Your task to perform on an android device: What's on my calendar tomorrow? Image 0: 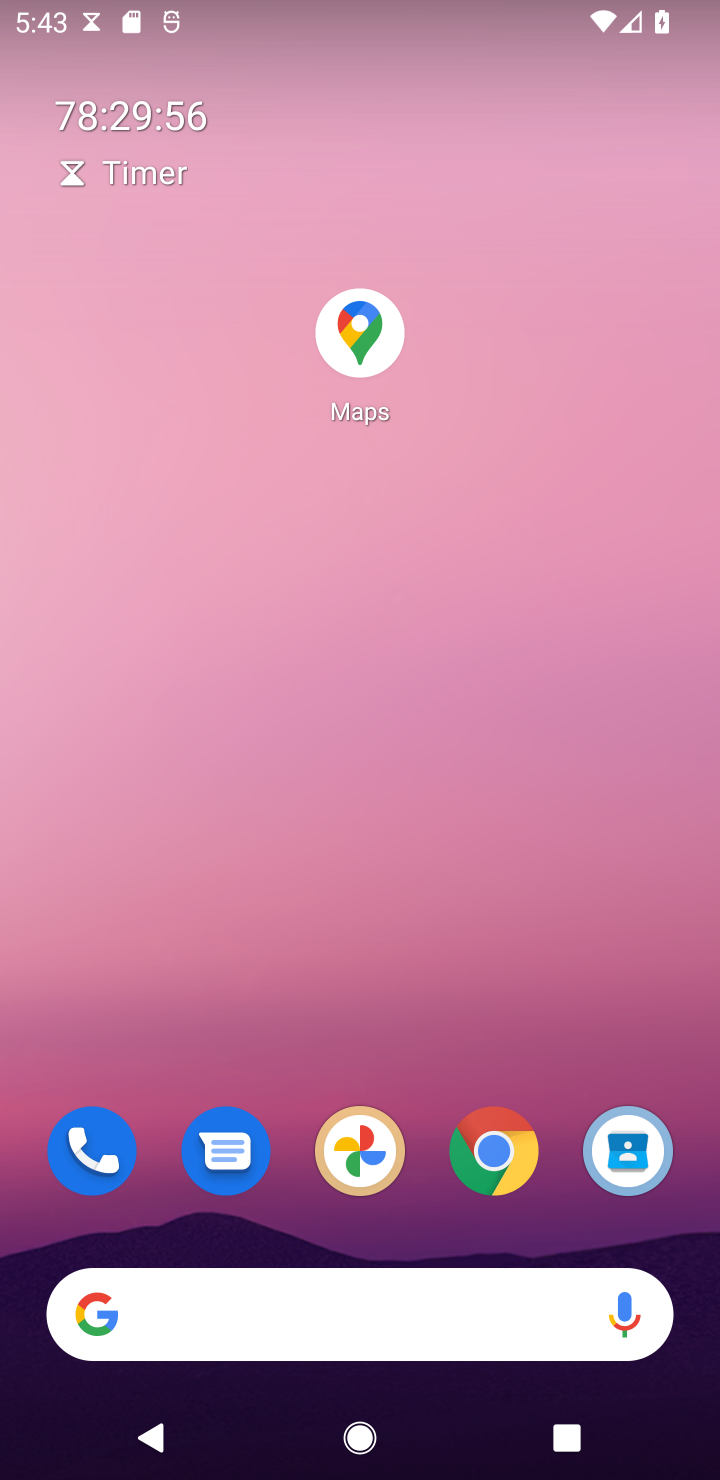
Step 0: press home button
Your task to perform on an android device: What's on my calendar tomorrow? Image 1: 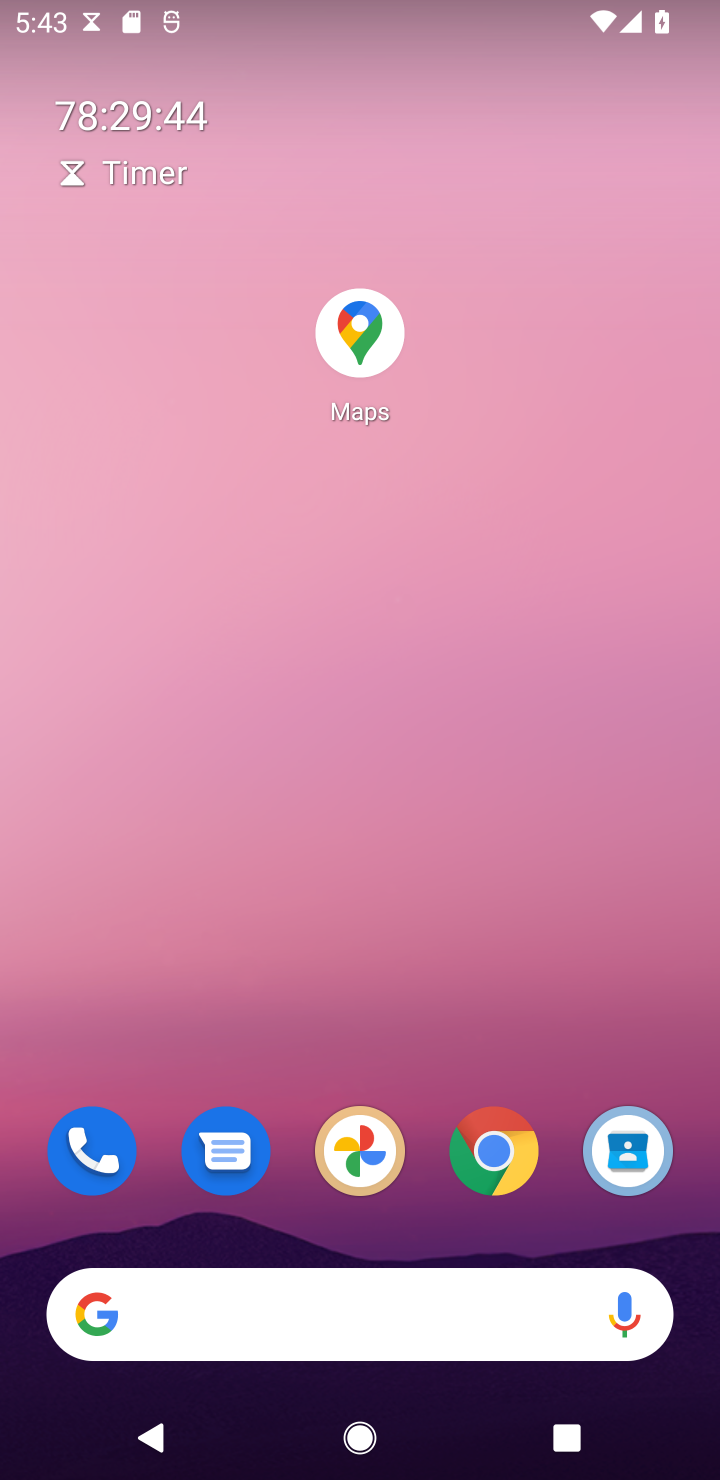
Step 1: drag from (322, 1069) to (348, 312)
Your task to perform on an android device: What's on my calendar tomorrow? Image 2: 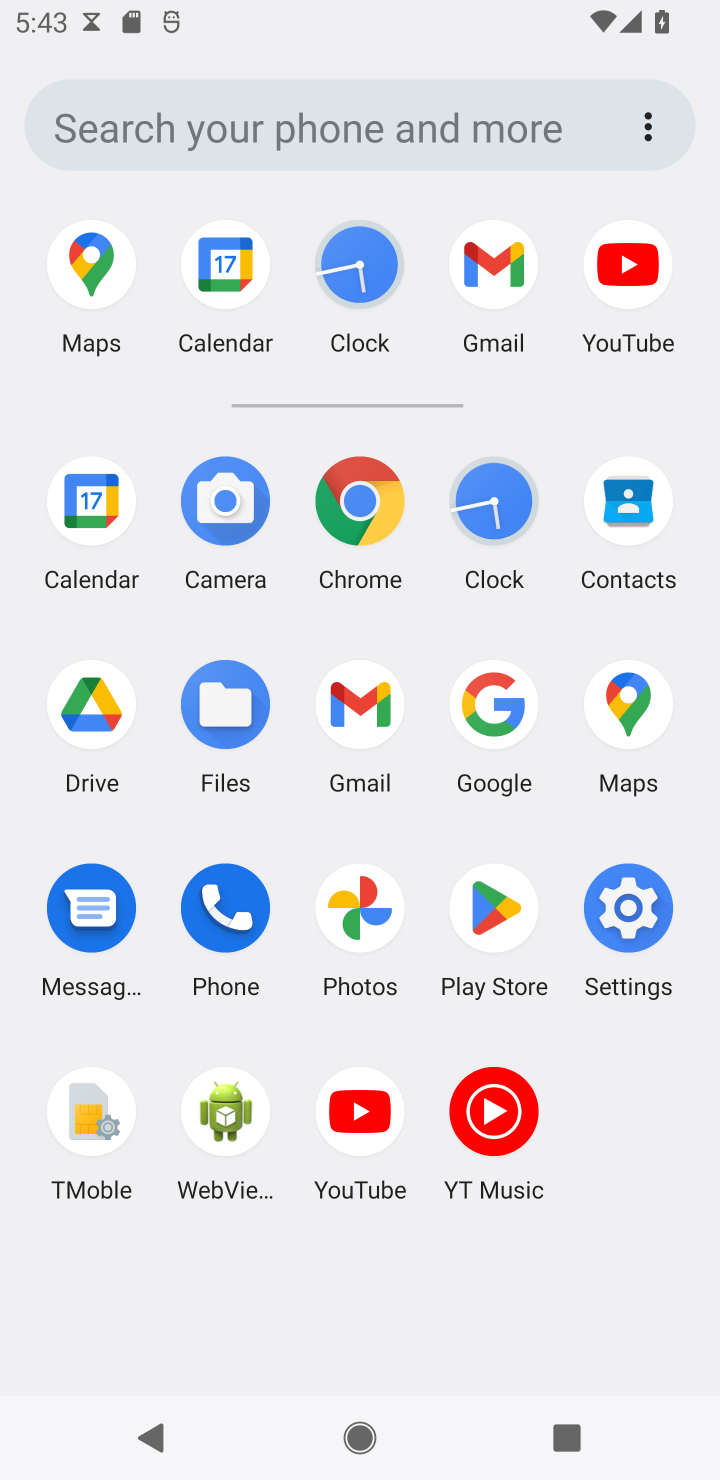
Step 2: click (81, 480)
Your task to perform on an android device: What's on my calendar tomorrow? Image 3: 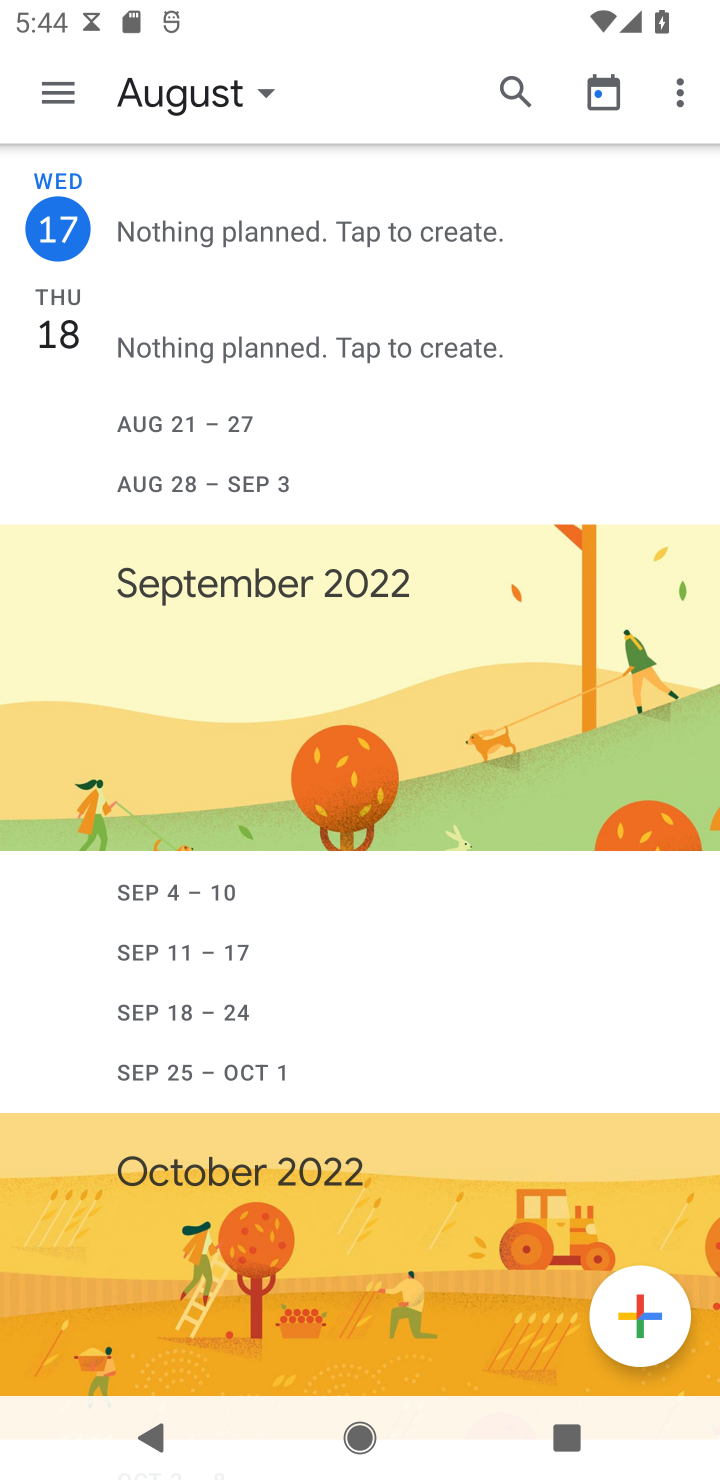
Step 3: click (64, 334)
Your task to perform on an android device: What's on my calendar tomorrow? Image 4: 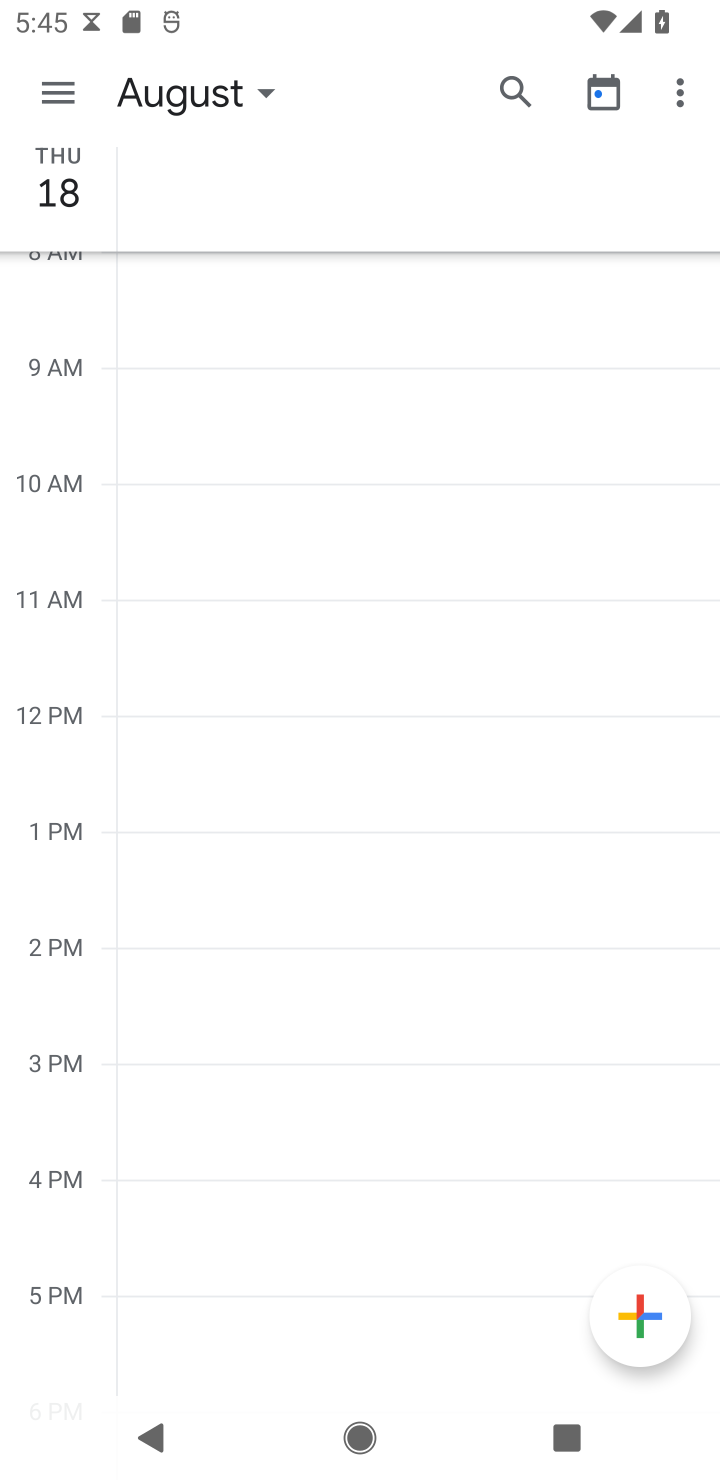
Step 4: task complete